Your task to perform on an android device: change notifications settings Image 0: 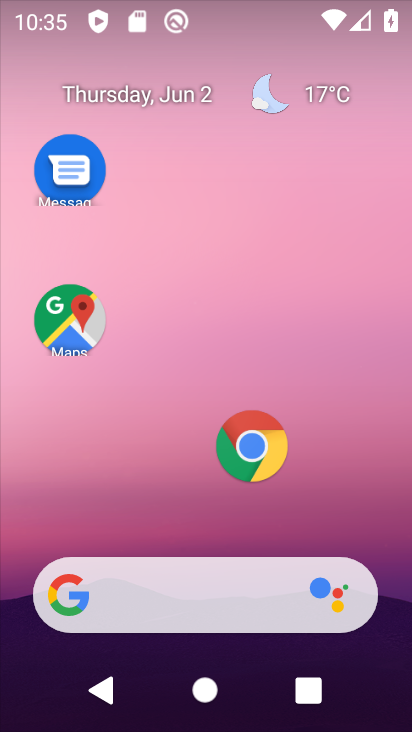
Step 0: click (172, 45)
Your task to perform on an android device: change notifications settings Image 1: 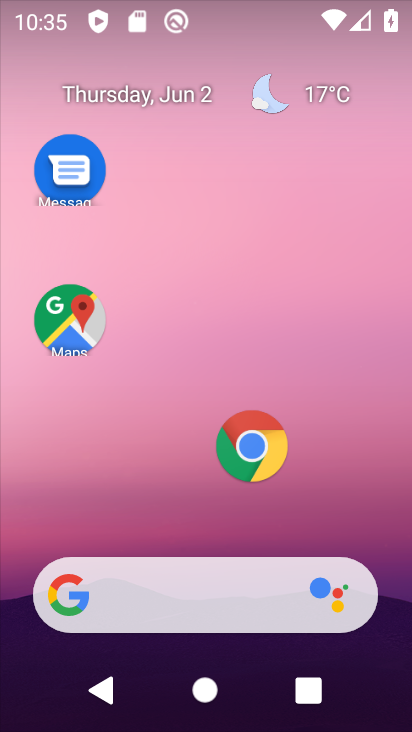
Step 1: drag from (156, 427) to (214, 64)
Your task to perform on an android device: change notifications settings Image 2: 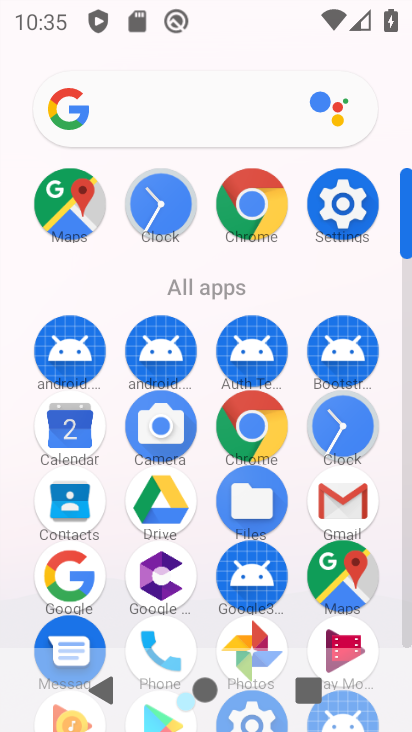
Step 2: click (331, 209)
Your task to perform on an android device: change notifications settings Image 3: 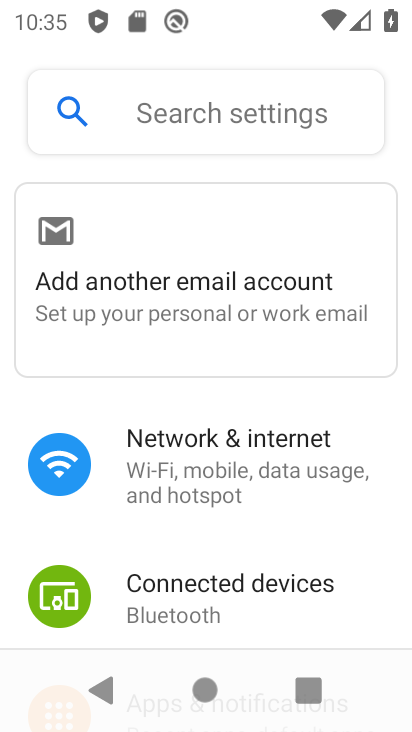
Step 3: drag from (213, 580) to (229, 247)
Your task to perform on an android device: change notifications settings Image 4: 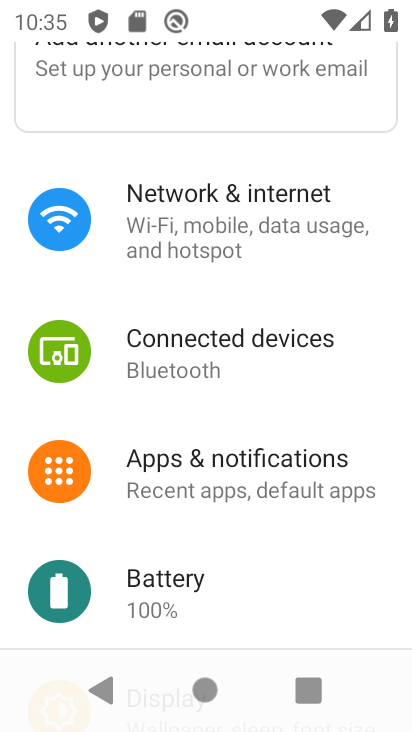
Step 4: click (217, 465)
Your task to perform on an android device: change notifications settings Image 5: 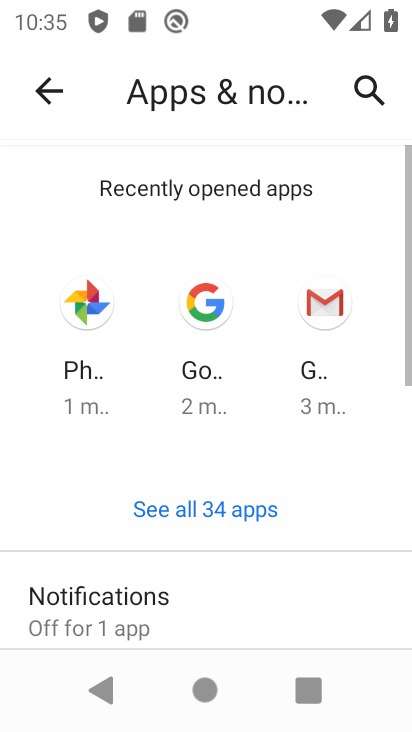
Step 5: task complete